Your task to perform on an android device: What is the news today? Image 0: 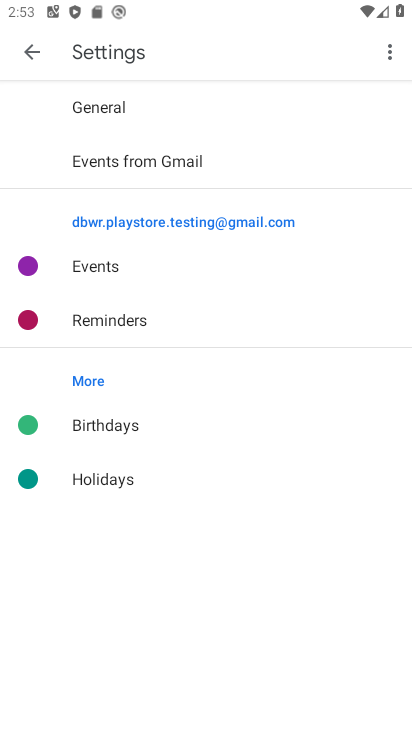
Step 0: press home button
Your task to perform on an android device: What is the news today? Image 1: 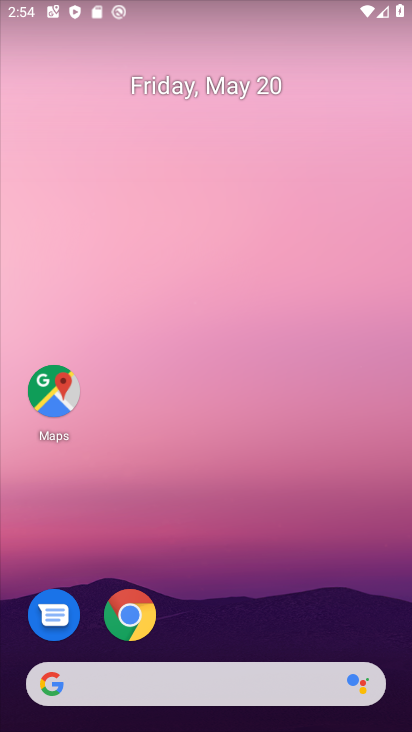
Step 1: click (119, 603)
Your task to perform on an android device: What is the news today? Image 2: 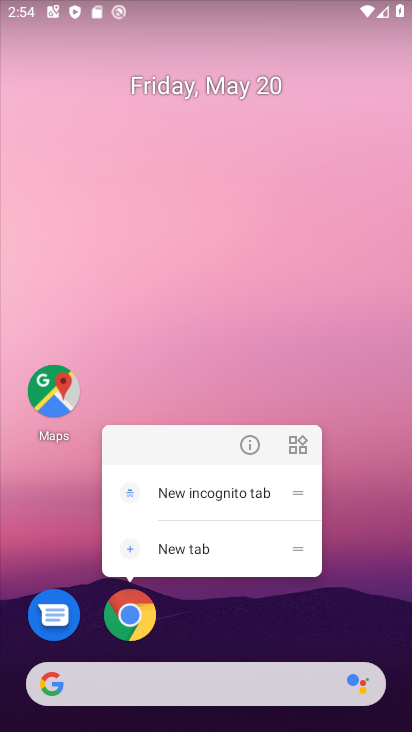
Step 2: click (135, 611)
Your task to perform on an android device: What is the news today? Image 3: 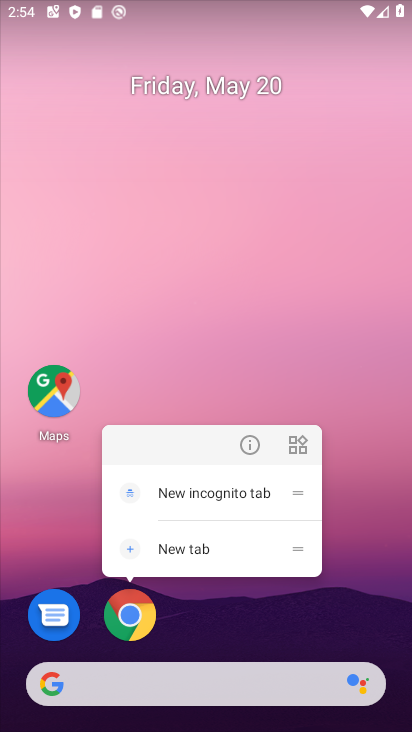
Step 3: click (137, 610)
Your task to perform on an android device: What is the news today? Image 4: 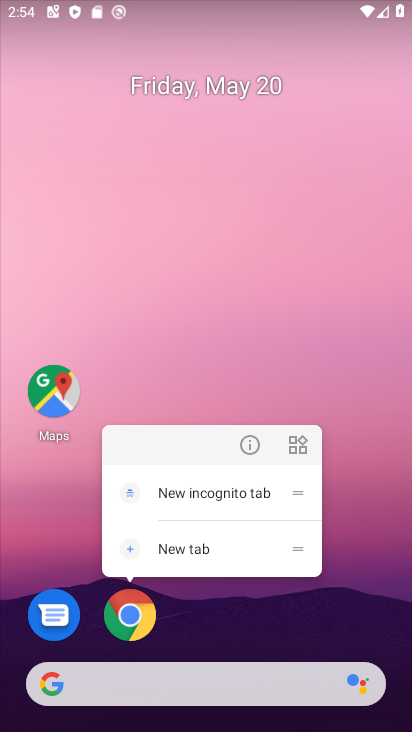
Step 4: click (116, 622)
Your task to perform on an android device: What is the news today? Image 5: 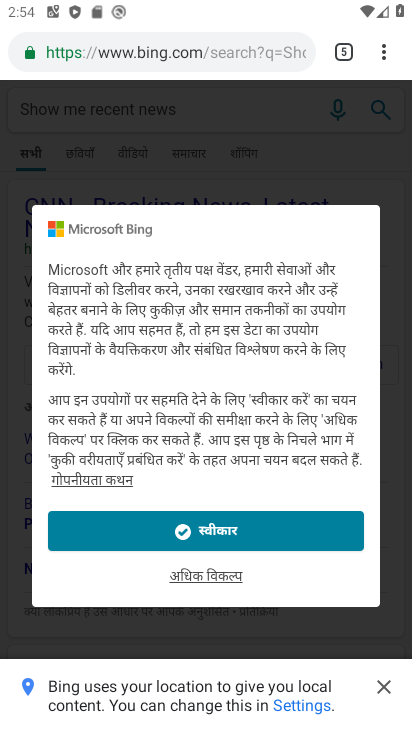
Step 5: click (389, 39)
Your task to perform on an android device: What is the news today? Image 6: 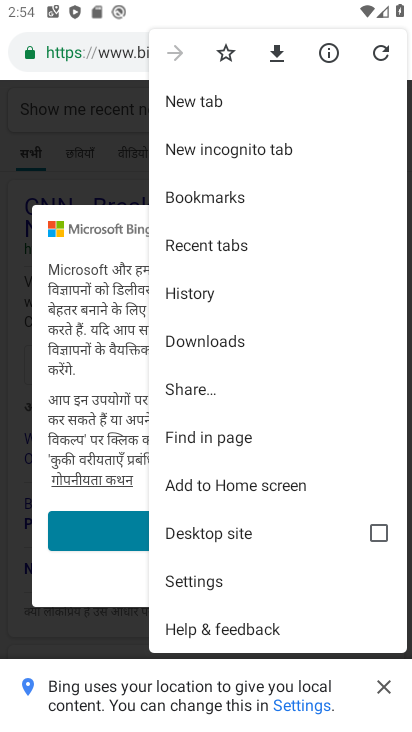
Step 6: click (215, 110)
Your task to perform on an android device: What is the news today? Image 7: 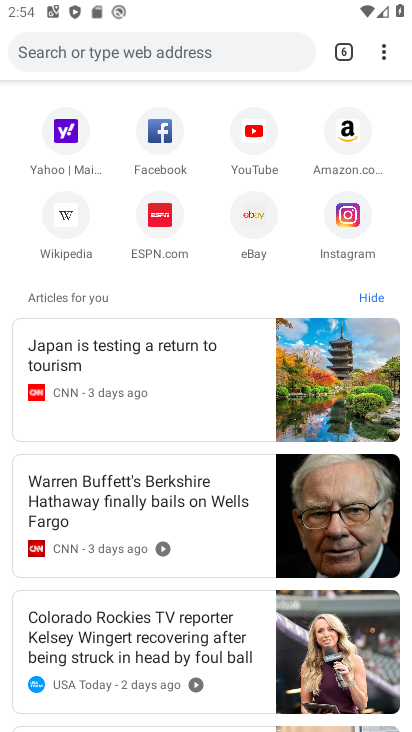
Step 7: click (127, 42)
Your task to perform on an android device: What is the news today? Image 8: 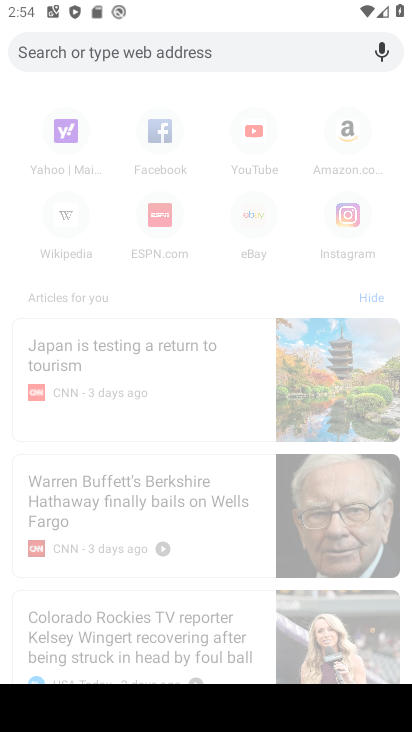
Step 8: type "What is the news today?"
Your task to perform on an android device: What is the news today? Image 9: 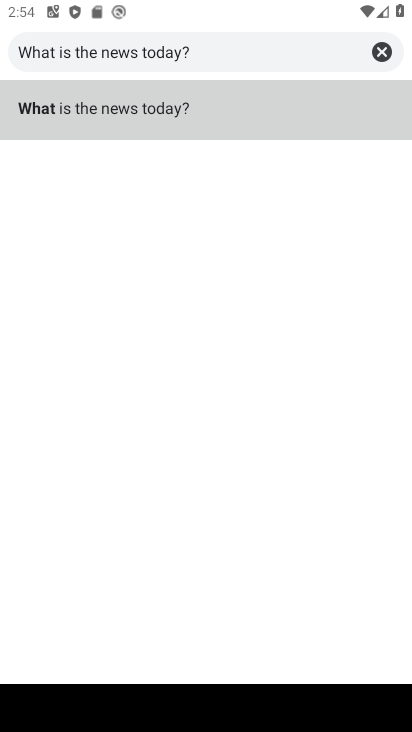
Step 9: click (154, 104)
Your task to perform on an android device: What is the news today? Image 10: 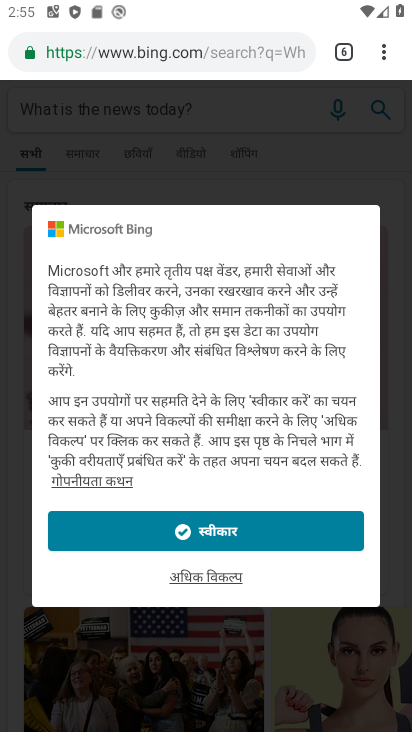
Step 10: task complete